Your task to perform on an android device: delete the emails in spam in the gmail app Image 0: 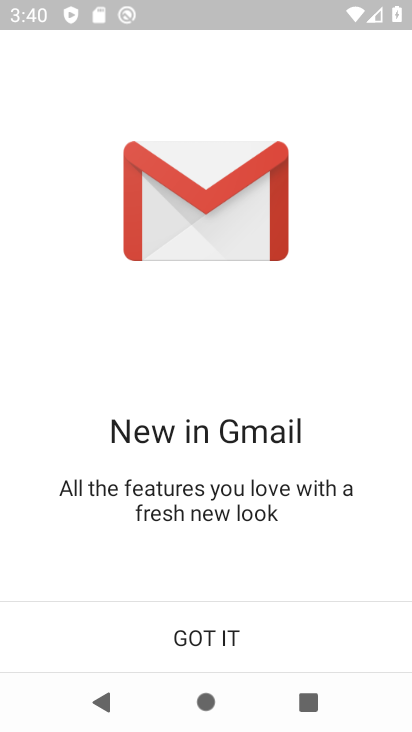
Step 0: press home button
Your task to perform on an android device: delete the emails in spam in the gmail app Image 1: 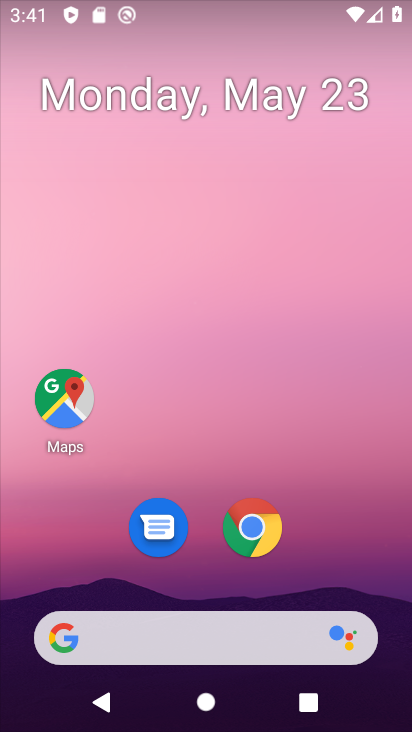
Step 1: drag from (387, 578) to (278, 102)
Your task to perform on an android device: delete the emails in spam in the gmail app Image 2: 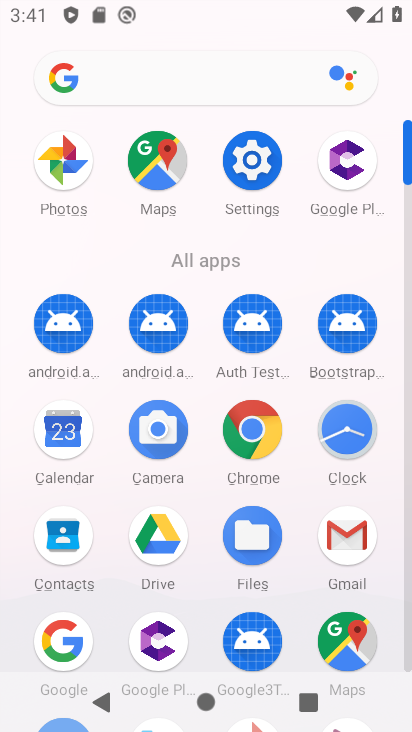
Step 2: click (365, 533)
Your task to perform on an android device: delete the emails in spam in the gmail app Image 3: 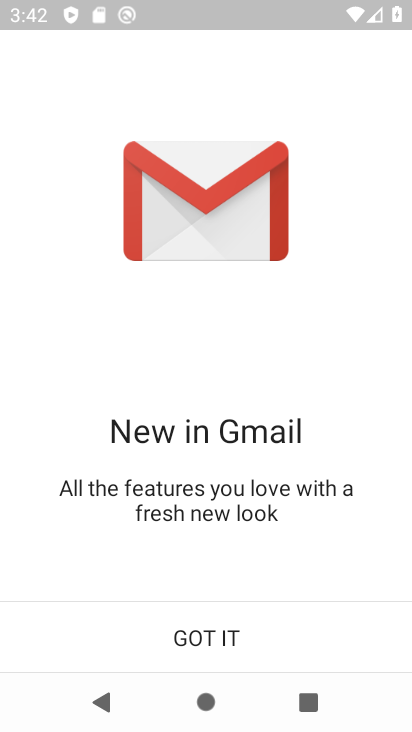
Step 3: click (151, 637)
Your task to perform on an android device: delete the emails in spam in the gmail app Image 4: 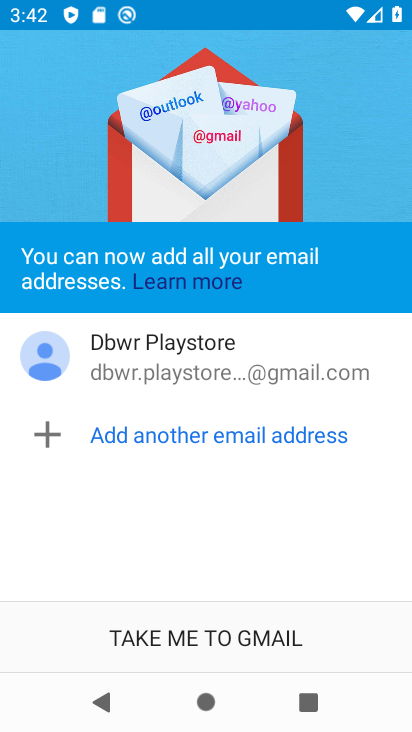
Step 4: click (252, 626)
Your task to perform on an android device: delete the emails in spam in the gmail app Image 5: 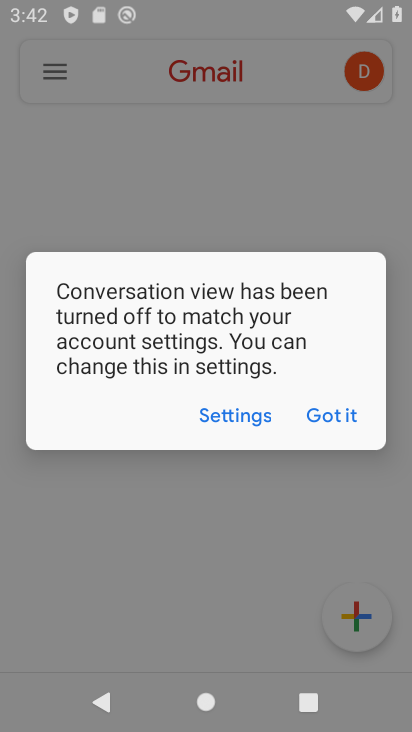
Step 5: click (255, 626)
Your task to perform on an android device: delete the emails in spam in the gmail app Image 6: 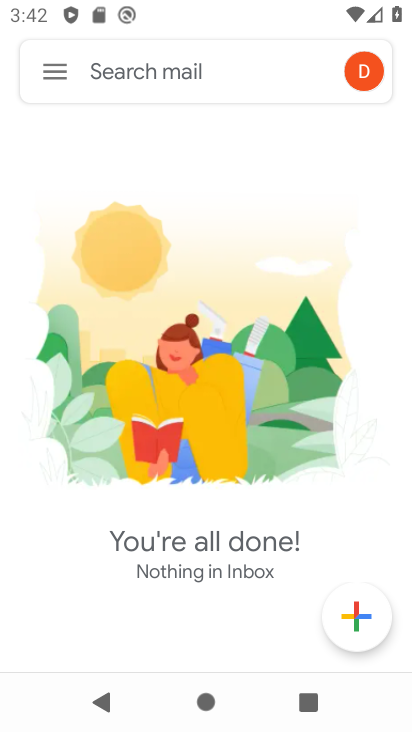
Step 6: click (66, 82)
Your task to perform on an android device: delete the emails in spam in the gmail app Image 7: 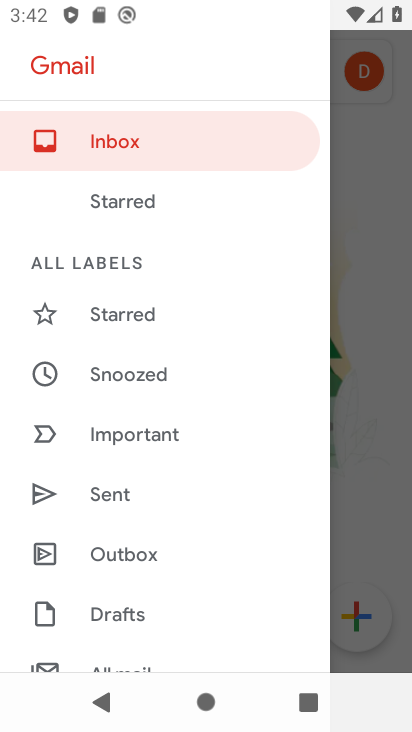
Step 7: task complete